Your task to perform on an android device: uninstall "PUBG MOBILE" Image 0: 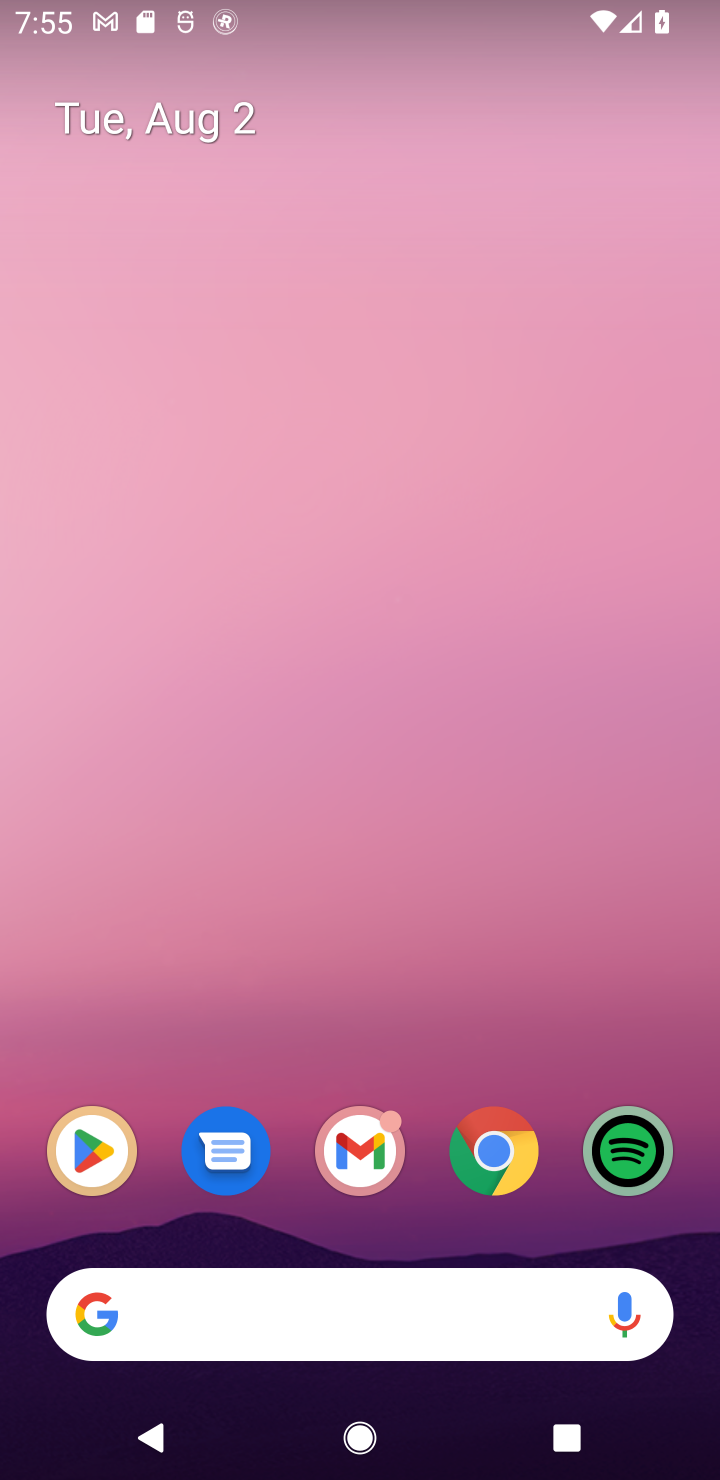
Step 0: click (114, 1166)
Your task to perform on an android device: uninstall "PUBG MOBILE" Image 1: 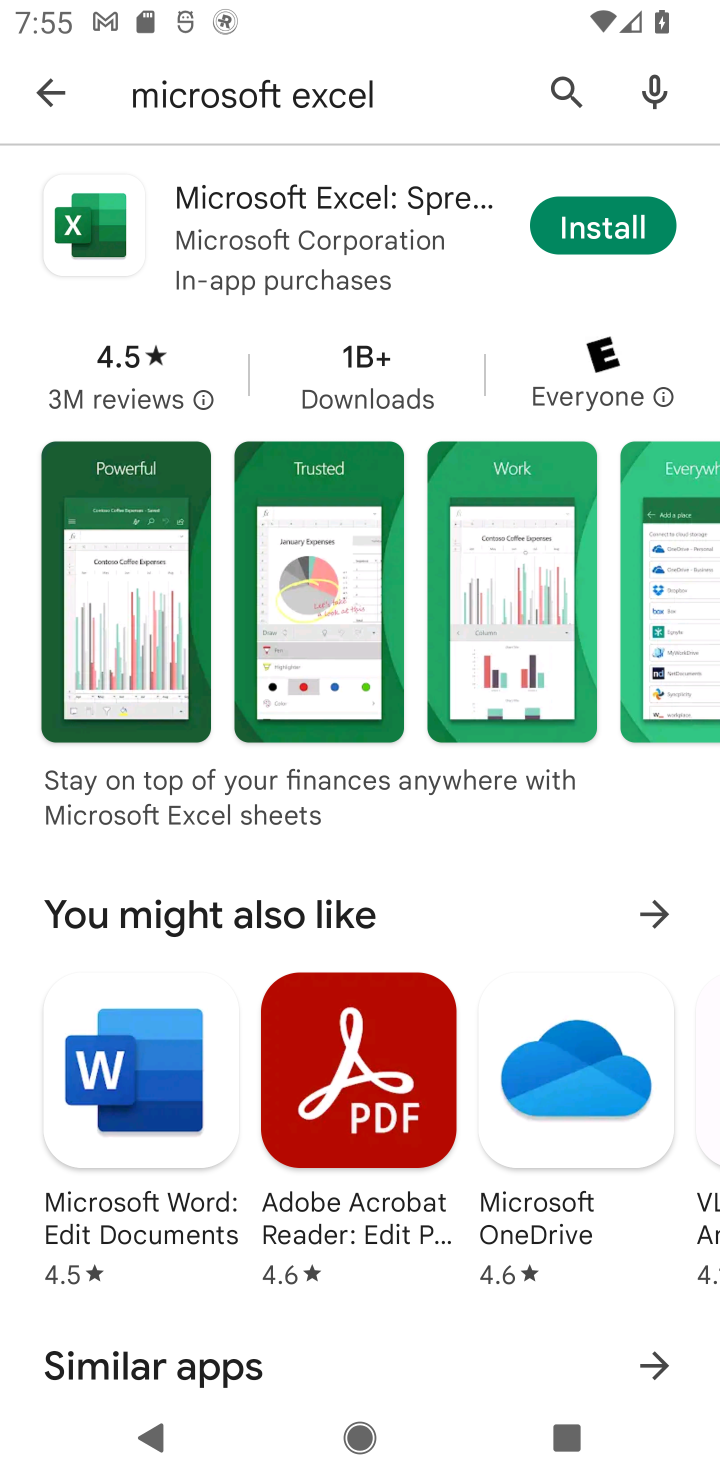
Step 1: click (566, 82)
Your task to perform on an android device: uninstall "PUBG MOBILE" Image 2: 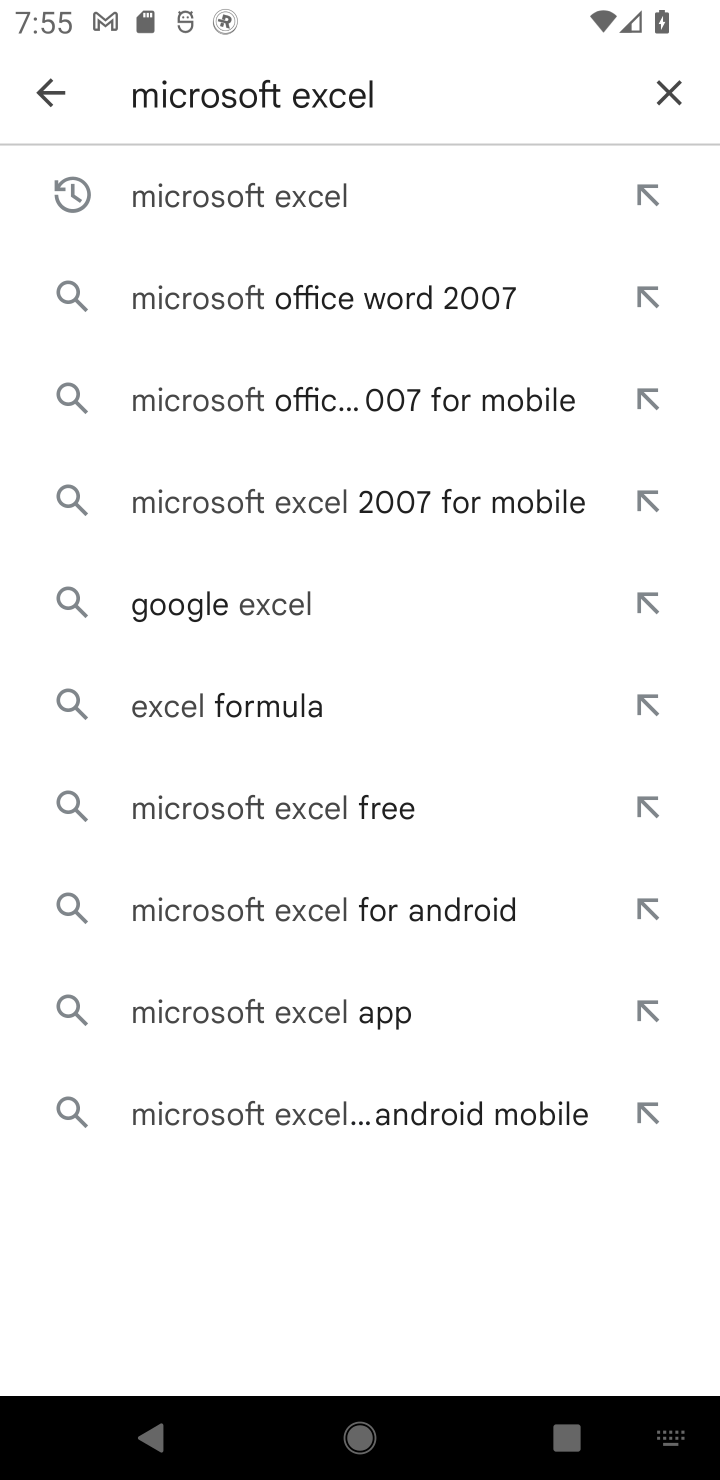
Step 2: click (655, 106)
Your task to perform on an android device: uninstall "PUBG MOBILE" Image 3: 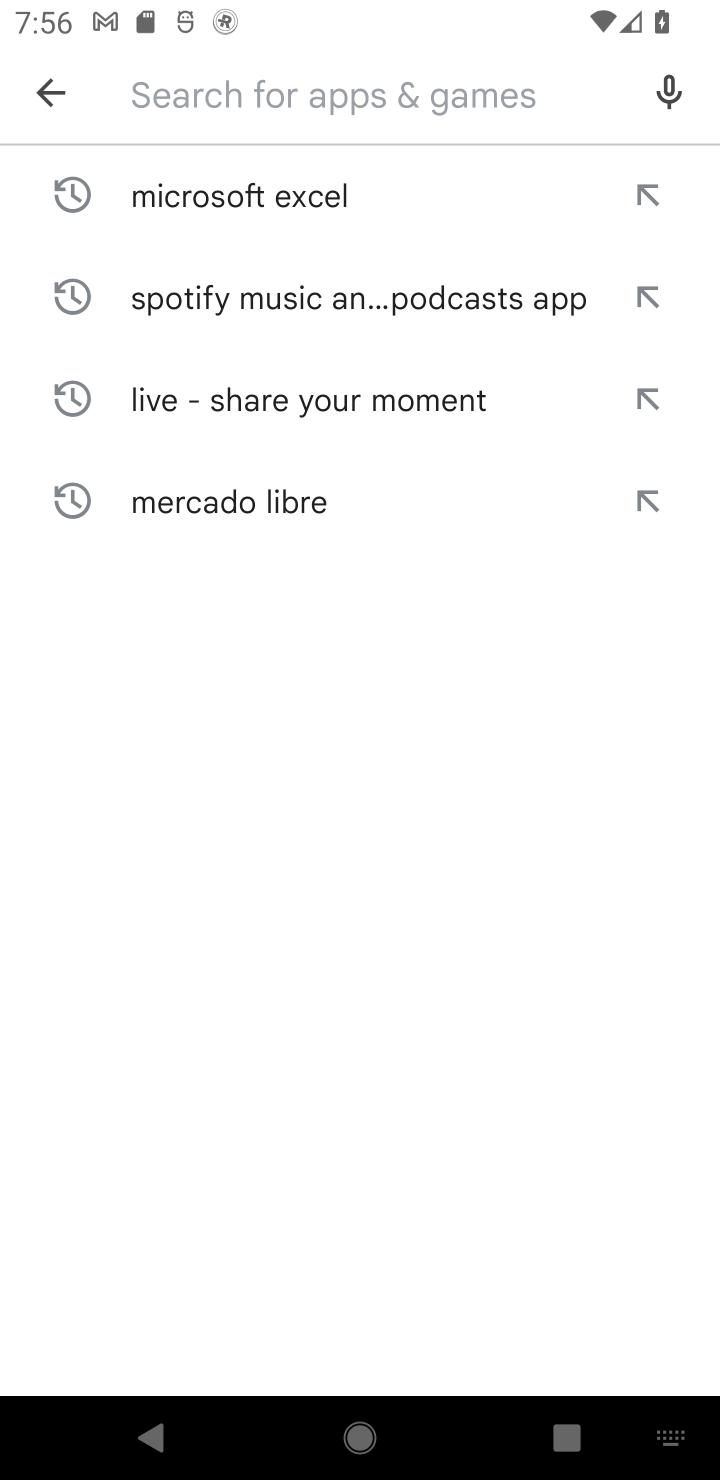
Step 3: type "PUBG MOBILE"
Your task to perform on an android device: uninstall "PUBG MOBILE" Image 4: 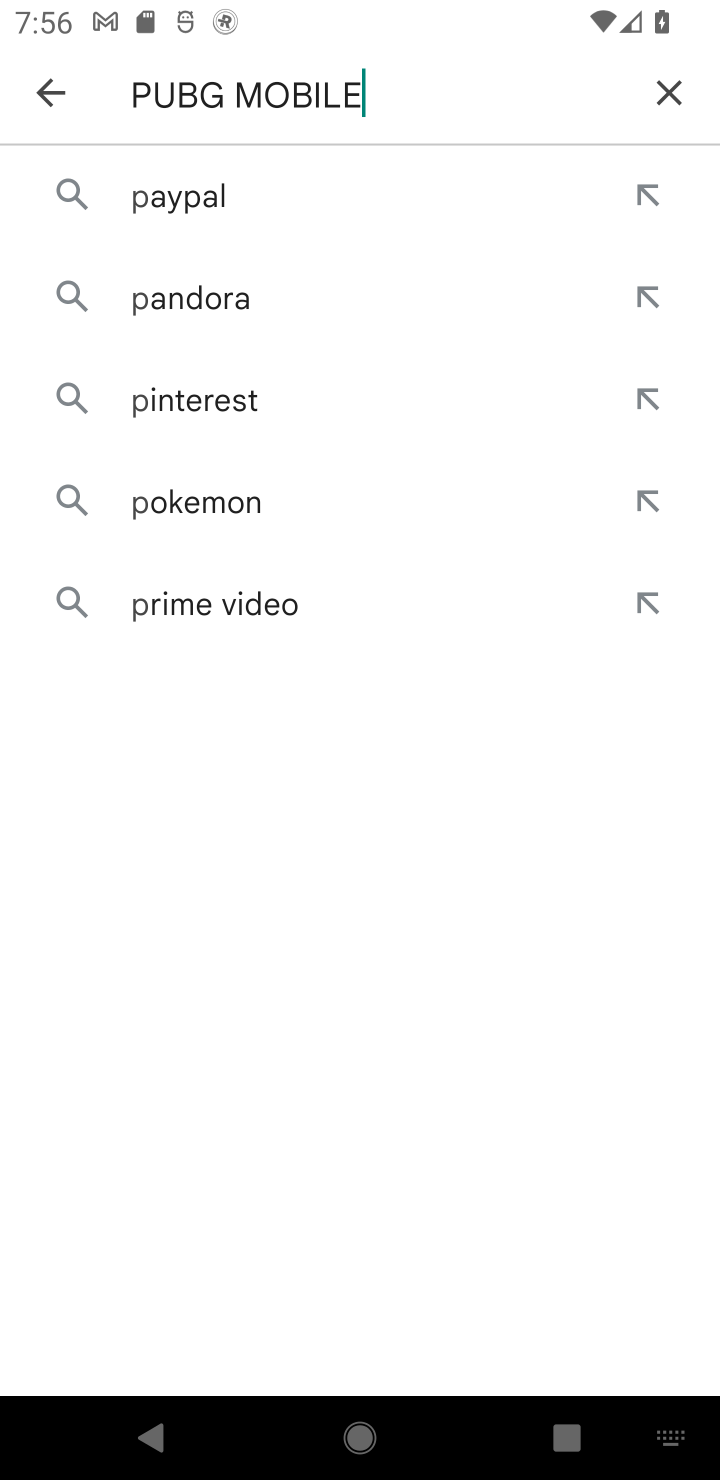
Step 4: type ""
Your task to perform on an android device: uninstall "PUBG MOBILE" Image 5: 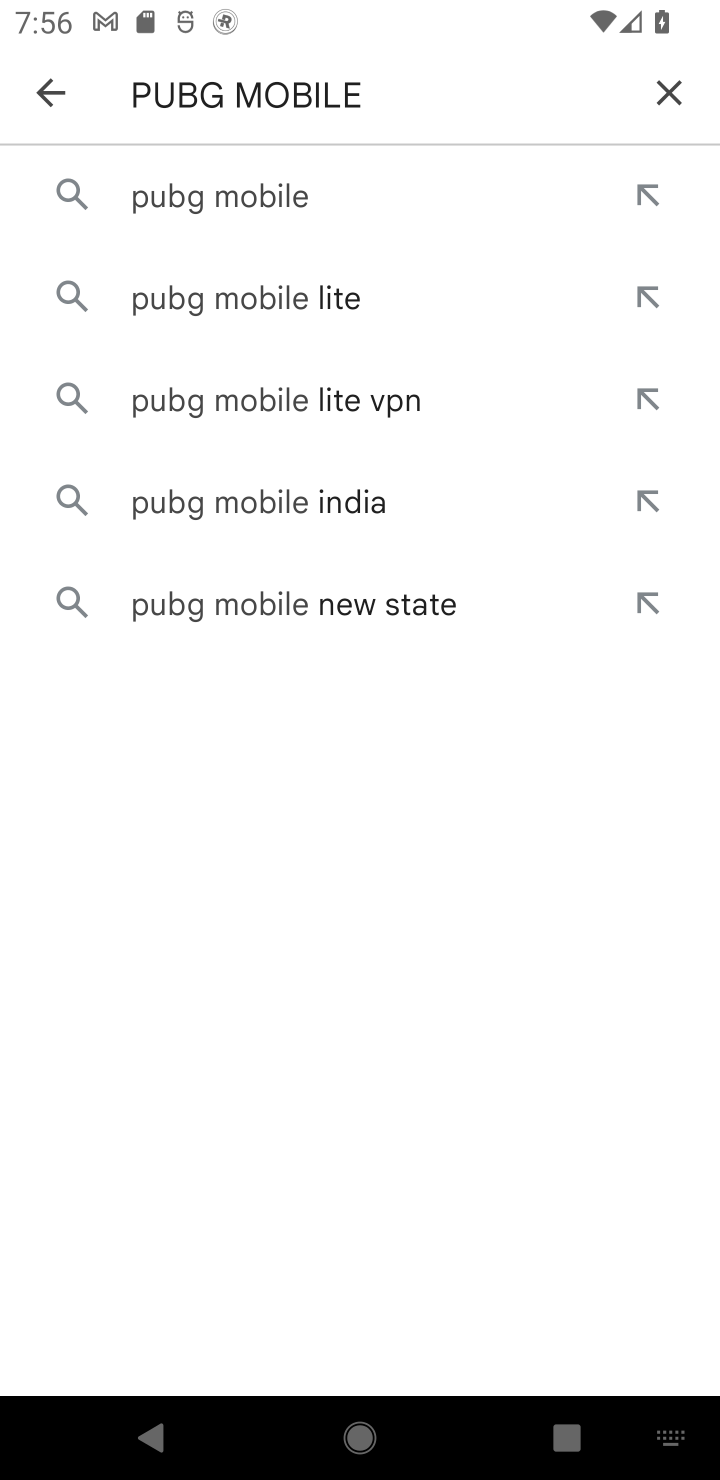
Step 5: click (176, 202)
Your task to perform on an android device: uninstall "PUBG MOBILE" Image 6: 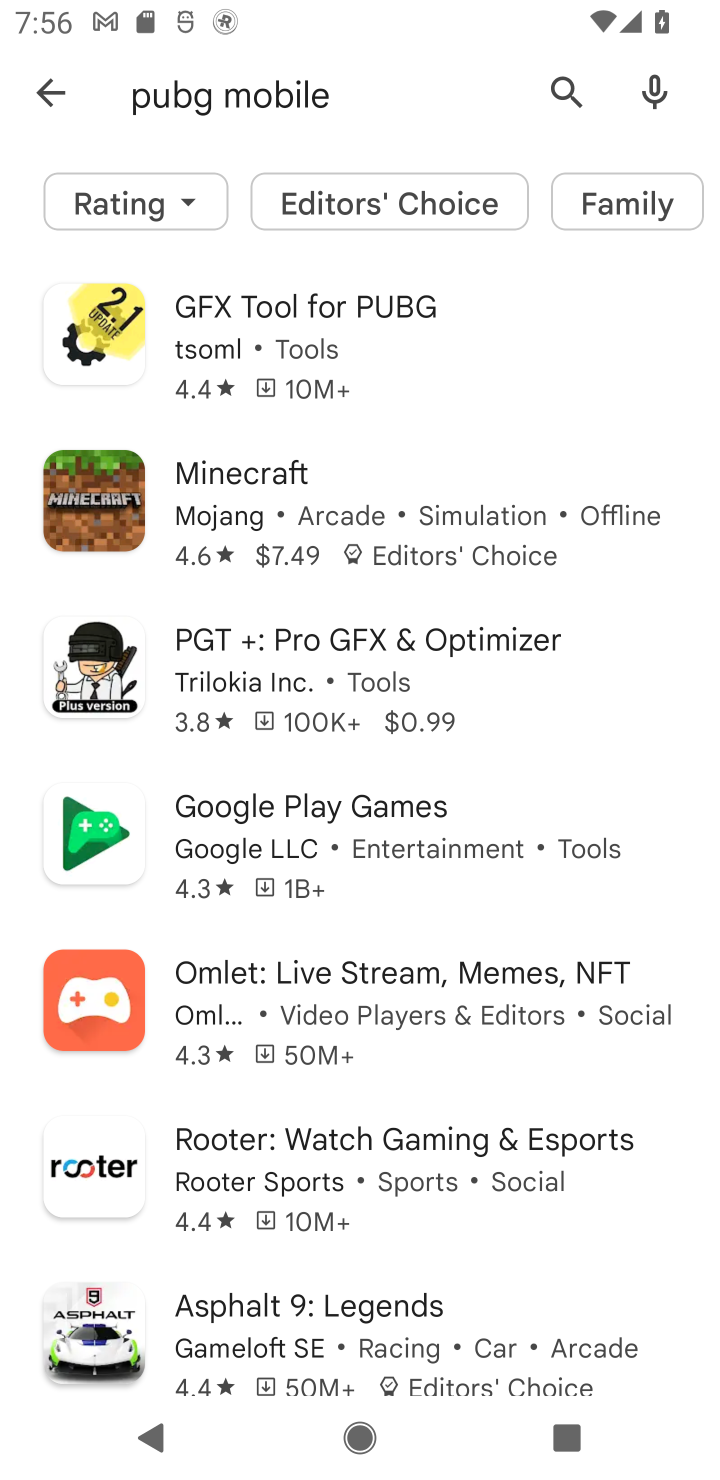
Step 6: task complete